Your task to perform on an android device: What's the weather today? Image 0: 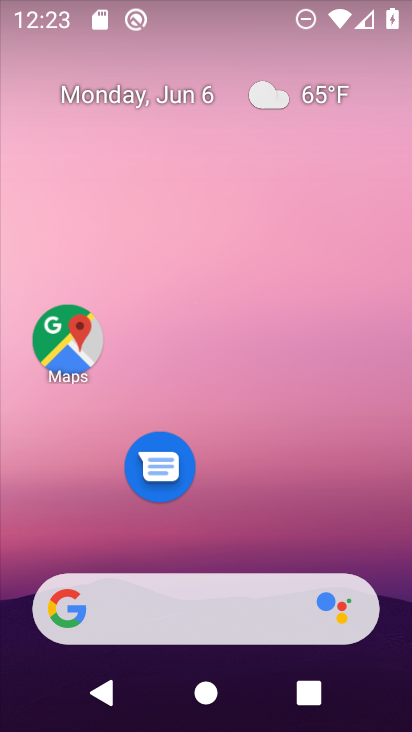
Step 0: press home button
Your task to perform on an android device: What's the weather today? Image 1: 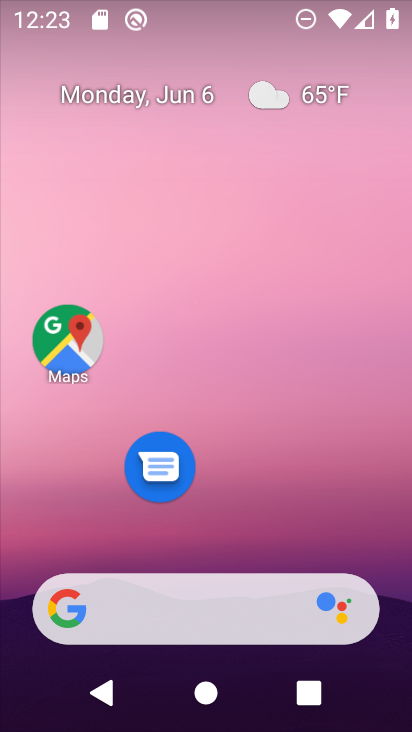
Step 1: drag from (403, 721) to (356, 91)
Your task to perform on an android device: What's the weather today? Image 2: 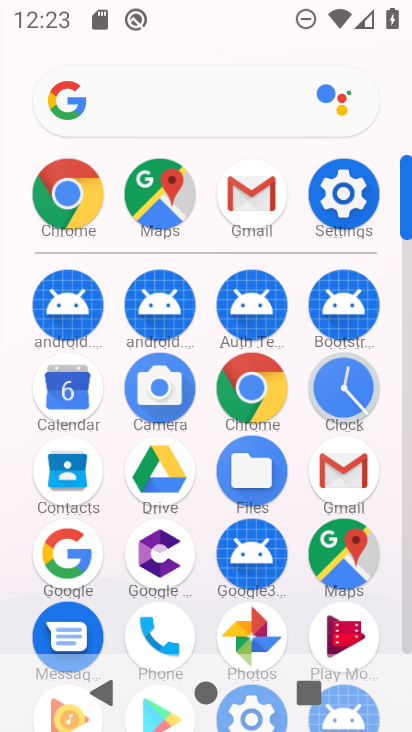
Step 2: drag from (256, 539) to (190, 242)
Your task to perform on an android device: What's the weather today? Image 3: 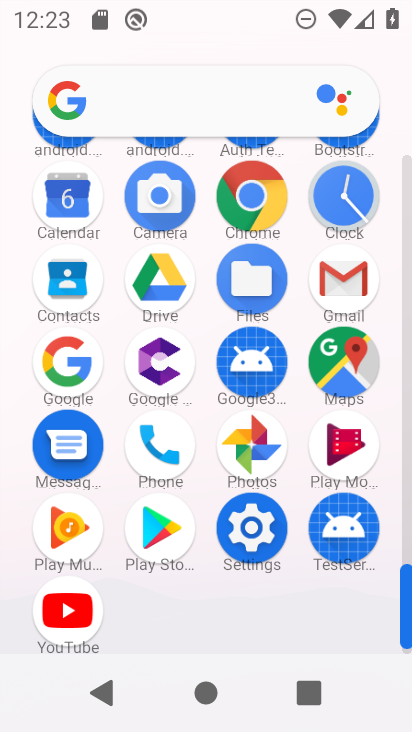
Step 3: click (245, 175)
Your task to perform on an android device: What's the weather today? Image 4: 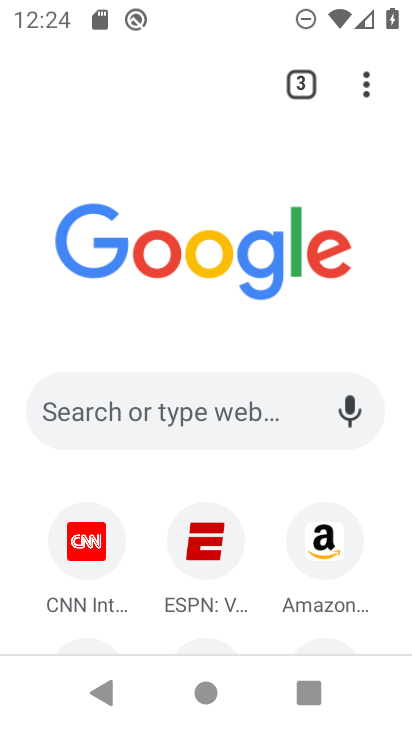
Step 4: click (162, 404)
Your task to perform on an android device: What's the weather today? Image 5: 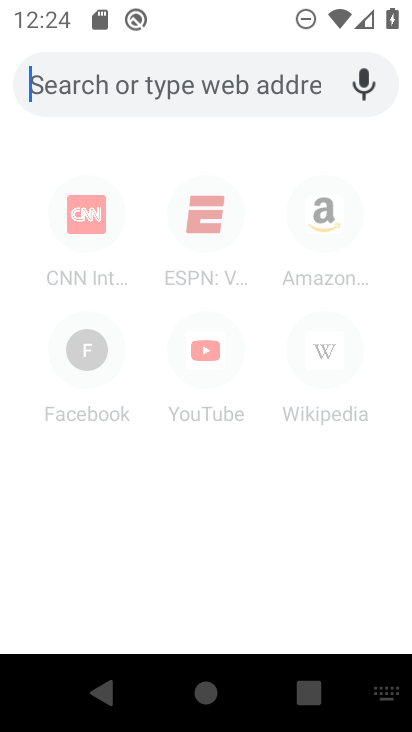
Step 5: type "What's the weather today?"
Your task to perform on an android device: What's the weather today? Image 6: 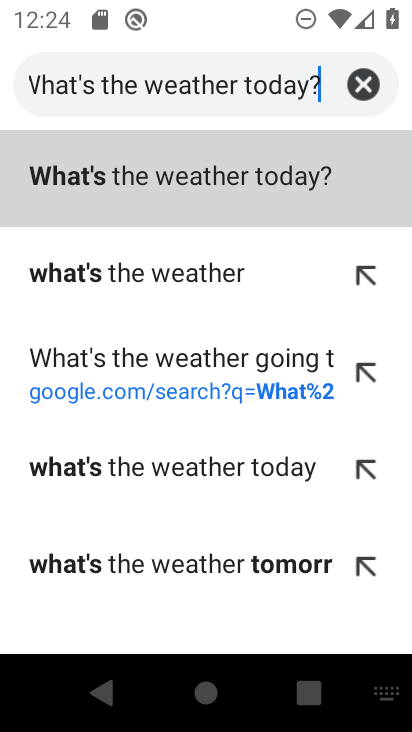
Step 6: type ""
Your task to perform on an android device: What's the weather today? Image 7: 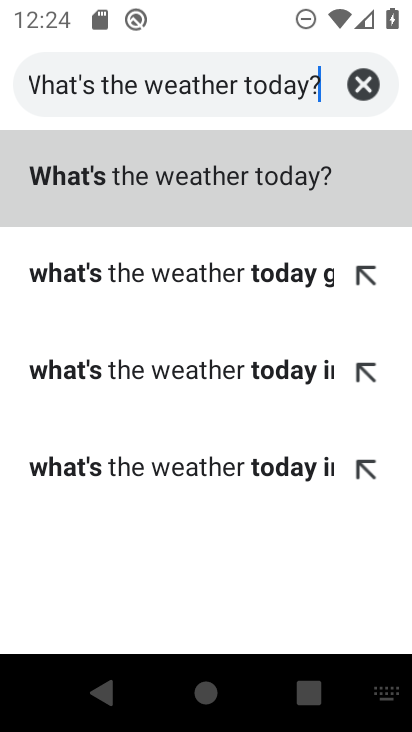
Step 7: click (188, 152)
Your task to perform on an android device: What's the weather today? Image 8: 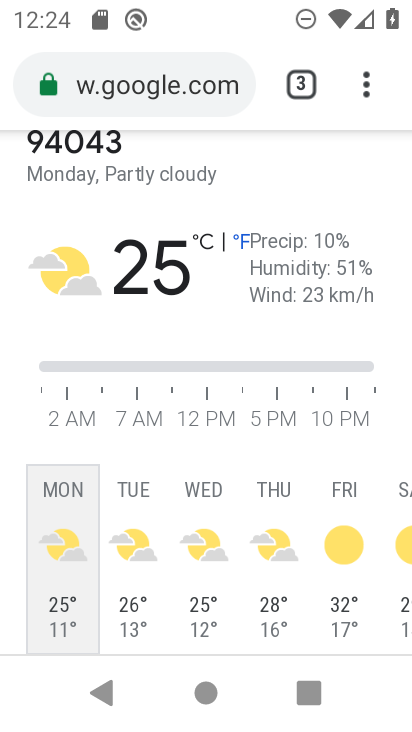
Step 8: task complete